Your task to perform on an android device: open device folders in google photos Image 0: 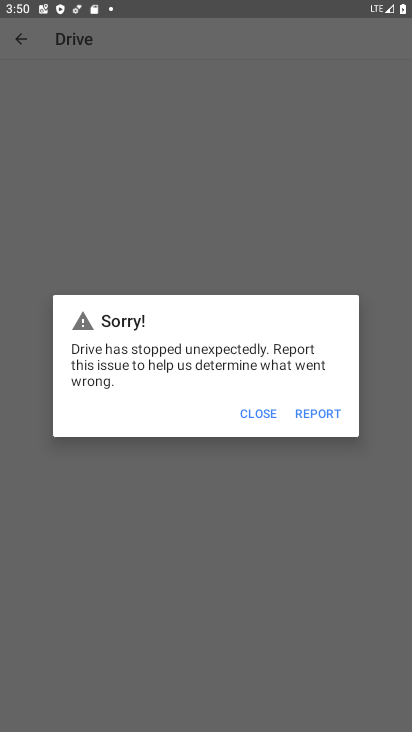
Step 0: press back button
Your task to perform on an android device: open device folders in google photos Image 1: 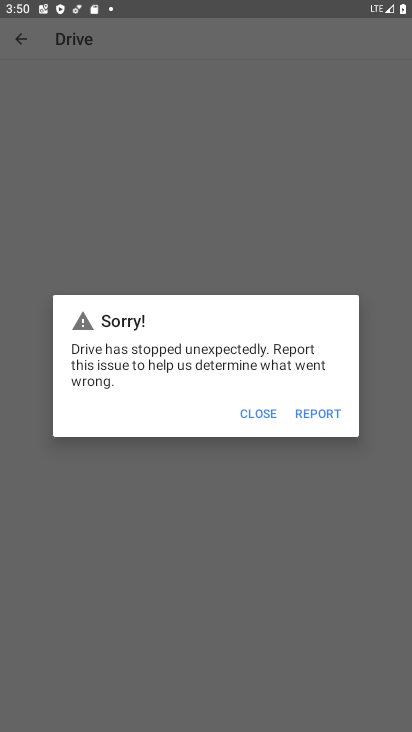
Step 1: press home button
Your task to perform on an android device: open device folders in google photos Image 2: 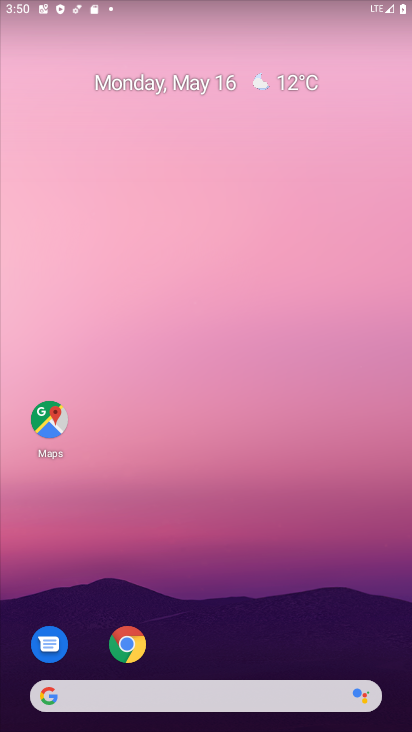
Step 2: drag from (204, 595) to (303, 76)
Your task to perform on an android device: open device folders in google photos Image 3: 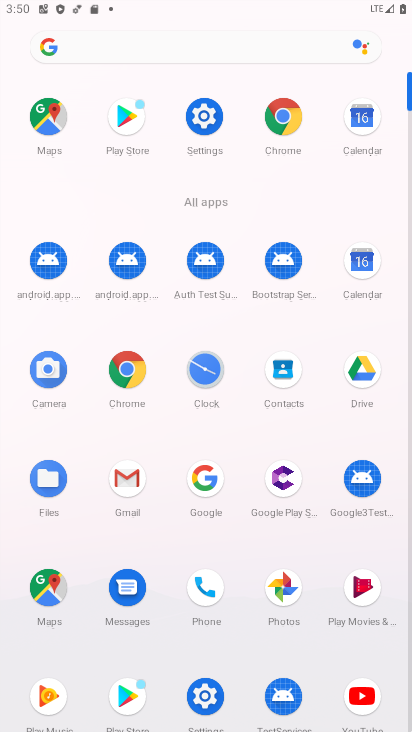
Step 3: click (288, 602)
Your task to perform on an android device: open device folders in google photos Image 4: 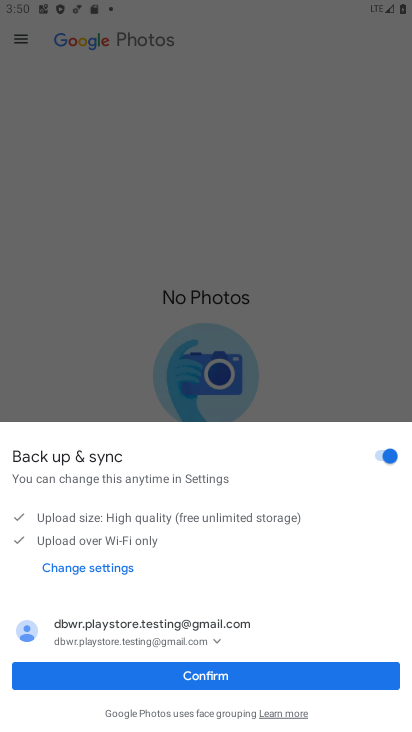
Step 4: click (19, 35)
Your task to perform on an android device: open device folders in google photos Image 5: 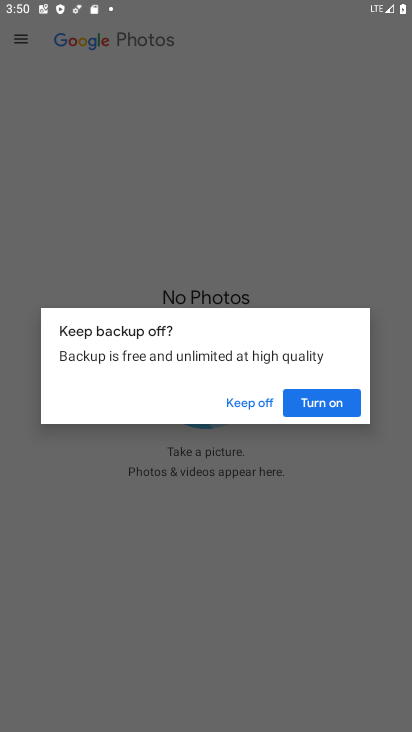
Step 5: click (20, 38)
Your task to perform on an android device: open device folders in google photos Image 6: 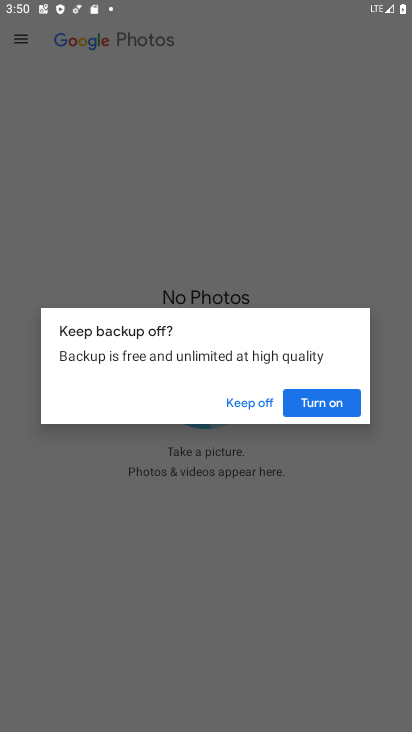
Step 6: click (219, 406)
Your task to perform on an android device: open device folders in google photos Image 7: 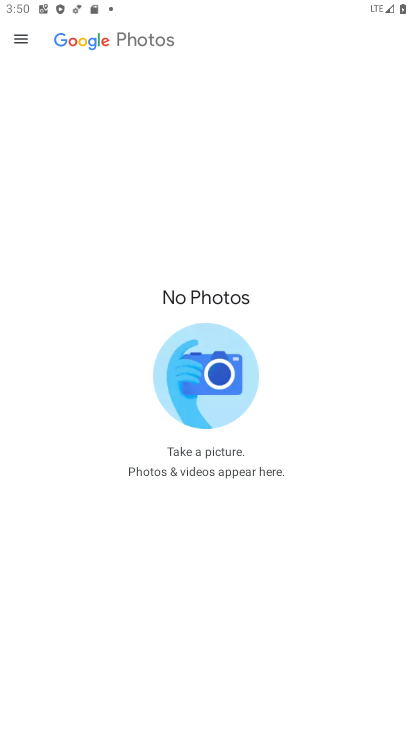
Step 7: click (24, 37)
Your task to perform on an android device: open device folders in google photos Image 8: 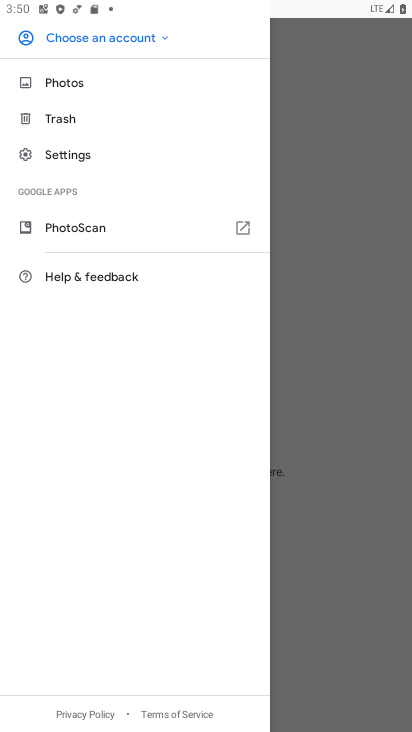
Step 8: task complete